Your task to perform on an android device: toggle notification dots Image 0: 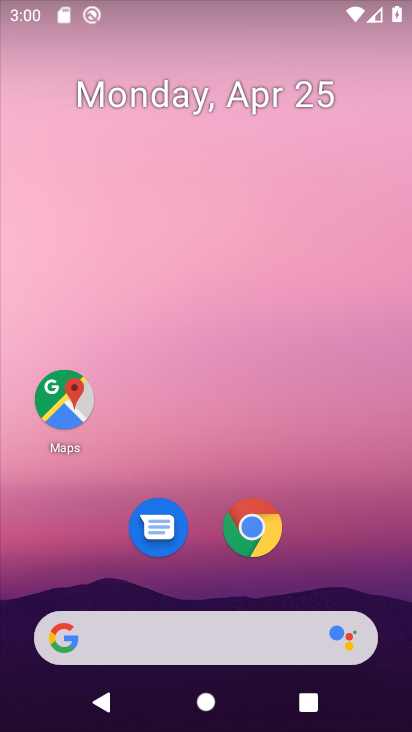
Step 0: drag from (386, 623) to (359, 137)
Your task to perform on an android device: toggle notification dots Image 1: 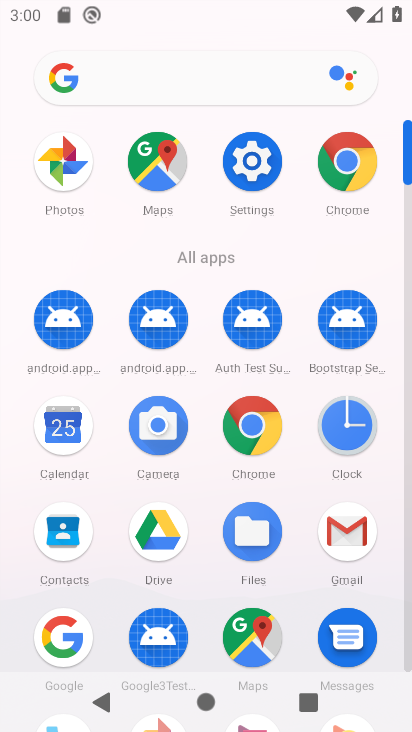
Step 1: click (406, 653)
Your task to perform on an android device: toggle notification dots Image 2: 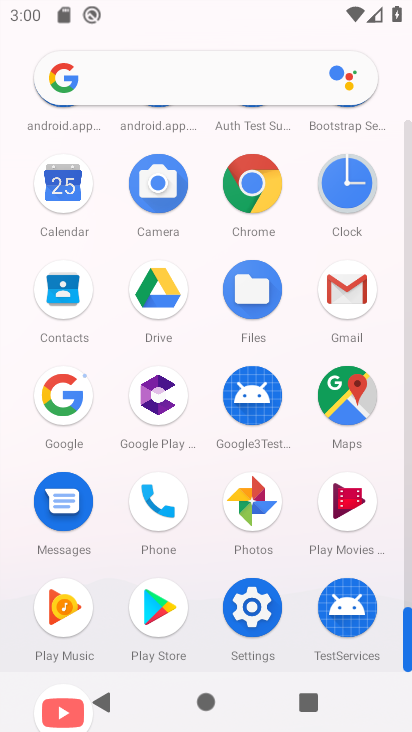
Step 2: click (154, 605)
Your task to perform on an android device: toggle notification dots Image 3: 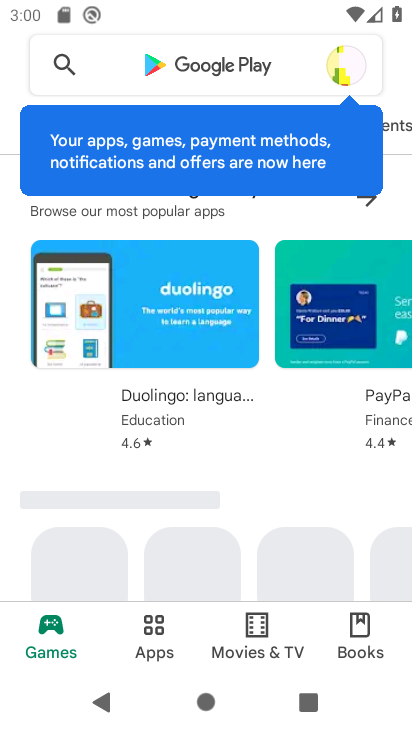
Step 3: press back button
Your task to perform on an android device: toggle notification dots Image 4: 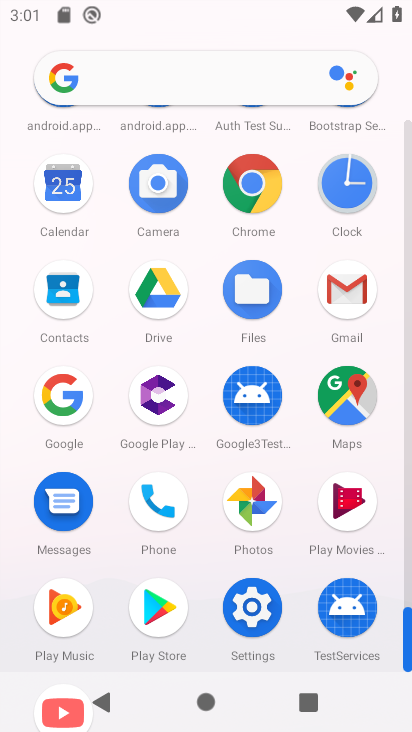
Step 4: click (252, 607)
Your task to perform on an android device: toggle notification dots Image 5: 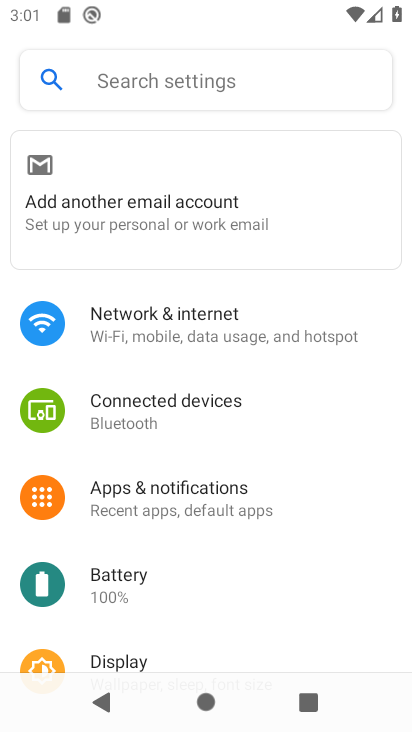
Step 5: click (168, 495)
Your task to perform on an android device: toggle notification dots Image 6: 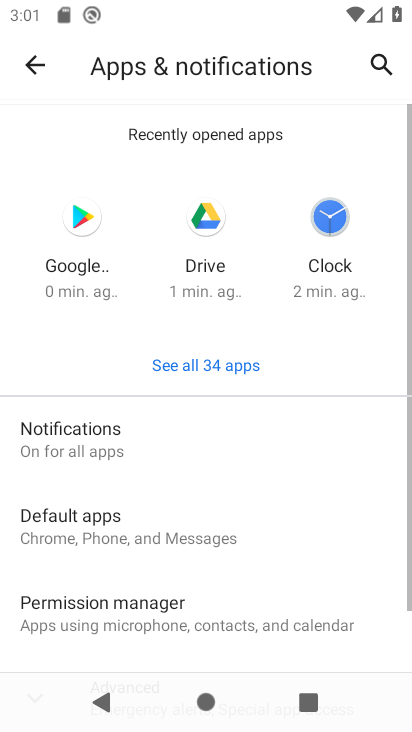
Step 6: drag from (349, 588) to (295, 217)
Your task to perform on an android device: toggle notification dots Image 7: 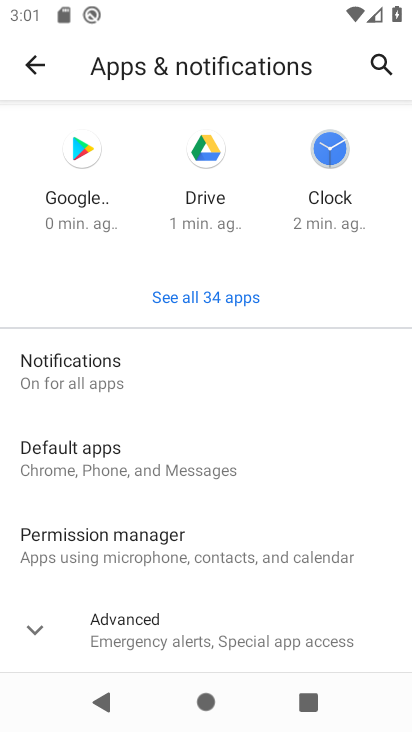
Step 7: click (61, 365)
Your task to perform on an android device: toggle notification dots Image 8: 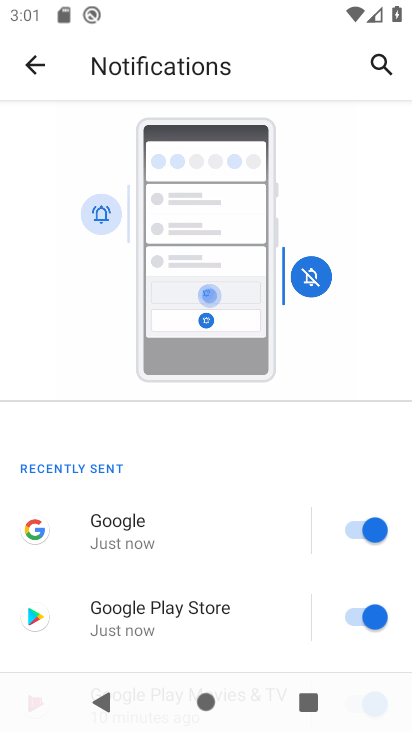
Step 8: drag from (294, 643) to (288, 151)
Your task to perform on an android device: toggle notification dots Image 9: 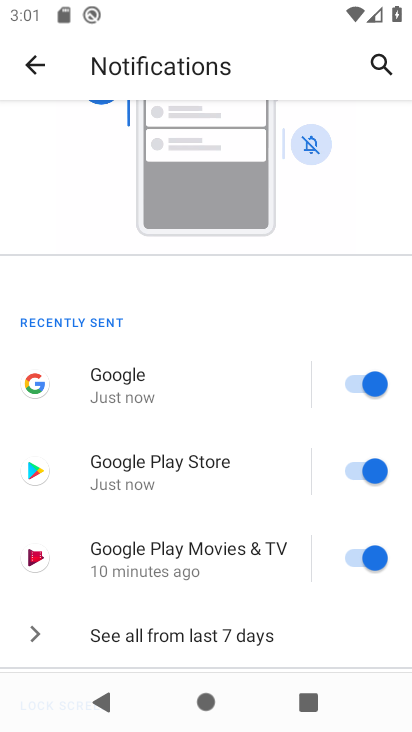
Step 9: drag from (307, 617) to (318, 142)
Your task to perform on an android device: toggle notification dots Image 10: 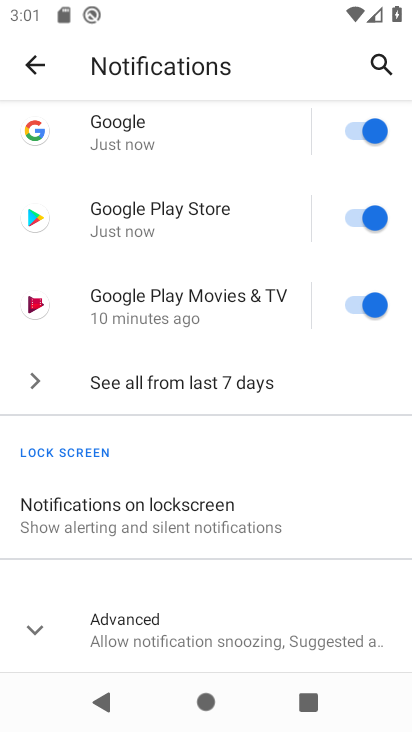
Step 10: click (29, 631)
Your task to perform on an android device: toggle notification dots Image 11: 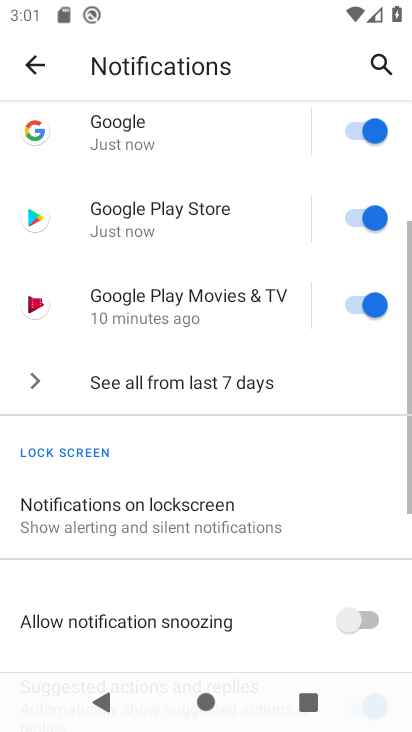
Step 11: drag from (299, 616) to (311, 135)
Your task to perform on an android device: toggle notification dots Image 12: 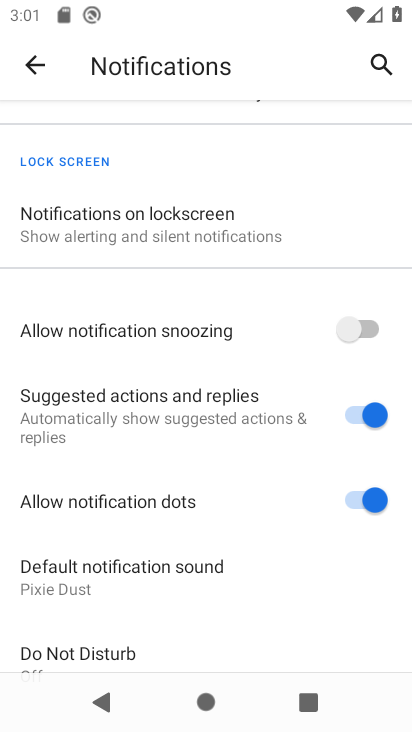
Step 12: click (349, 500)
Your task to perform on an android device: toggle notification dots Image 13: 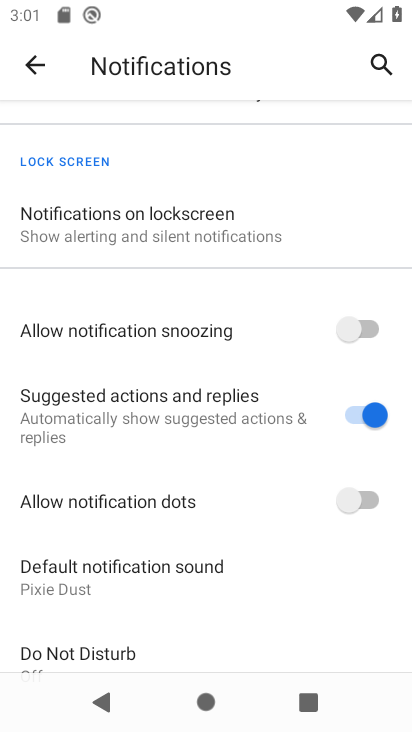
Step 13: task complete